Your task to perform on an android device: change alarm snooze length Image 0: 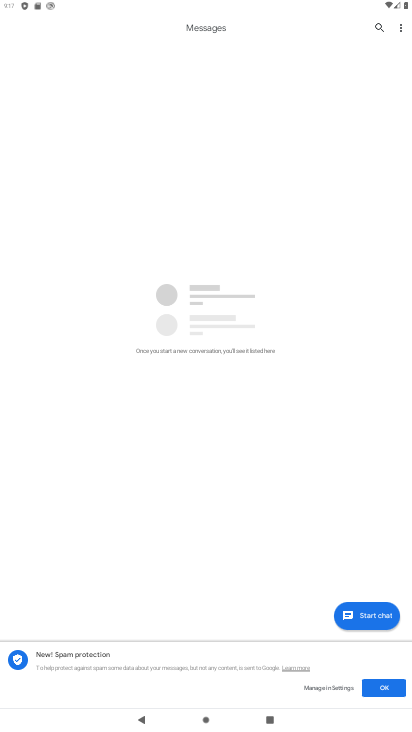
Step 0: press home button
Your task to perform on an android device: change alarm snooze length Image 1: 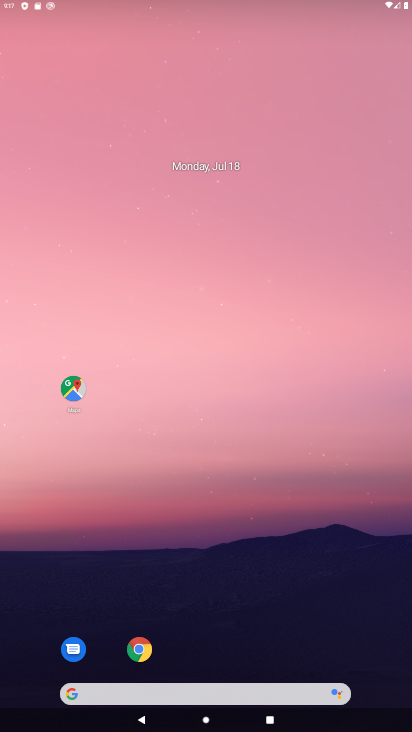
Step 1: drag from (271, 615) to (299, 137)
Your task to perform on an android device: change alarm snooze length Image 2: 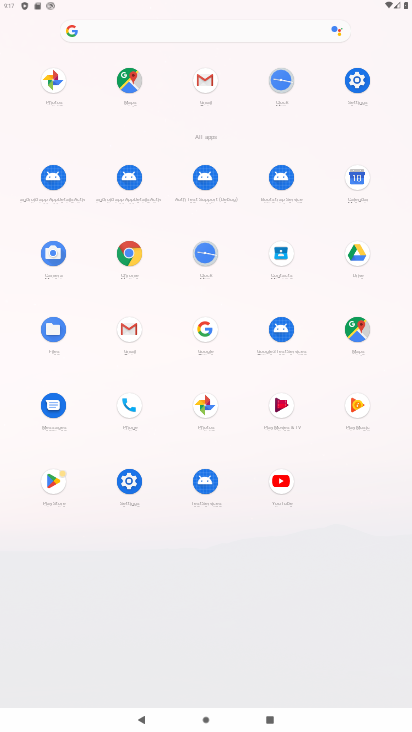
Step 2: click (203, 269)
Your task to perform on an android device: change alarm snooze length Image 3: 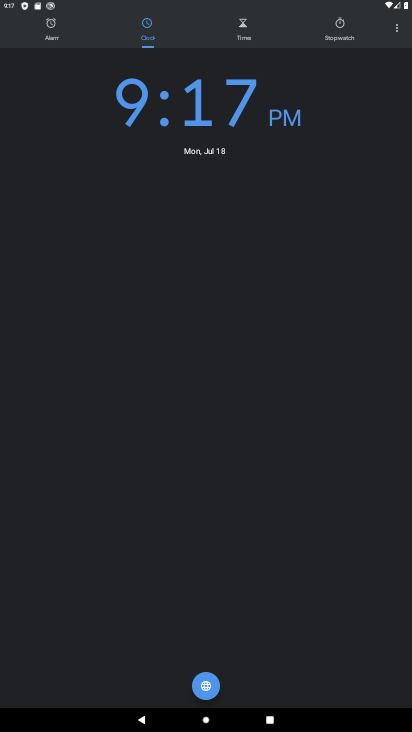
Step 3: click (395, 39)
Your task to perform on an android device: change alarm snooze length Image 4: 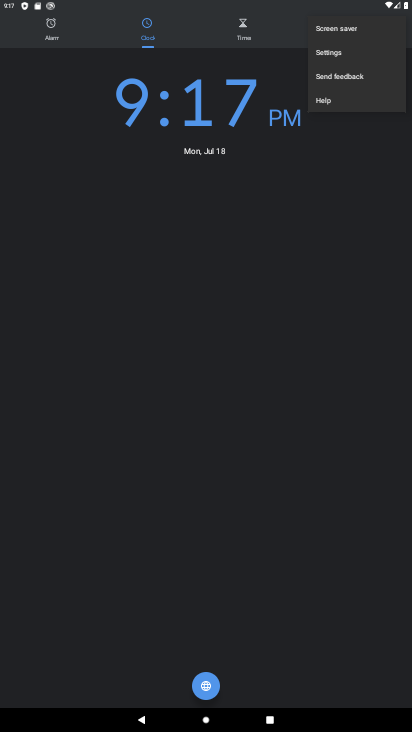
Step 4: click (355, 52)
Your task to perform on an android device: change alarm snooze length Image 5: 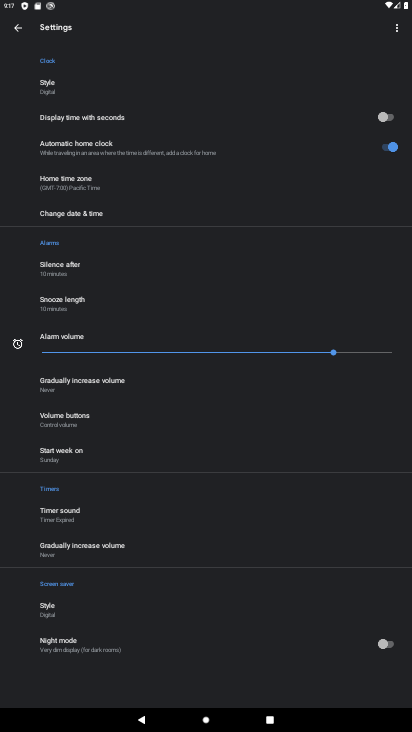
Step 5: click (101, 319)
Your task to perform on an android device: change alarm snooze length Image 6: 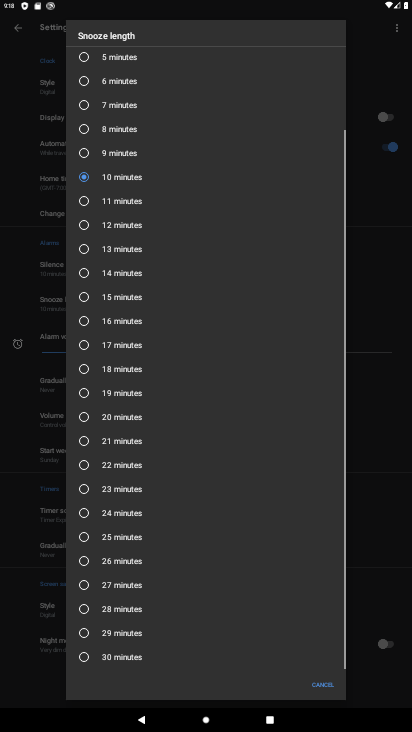
Step 6: click (144, 278)
Your task to perform on an android device: change alarm snooze length Image 7: 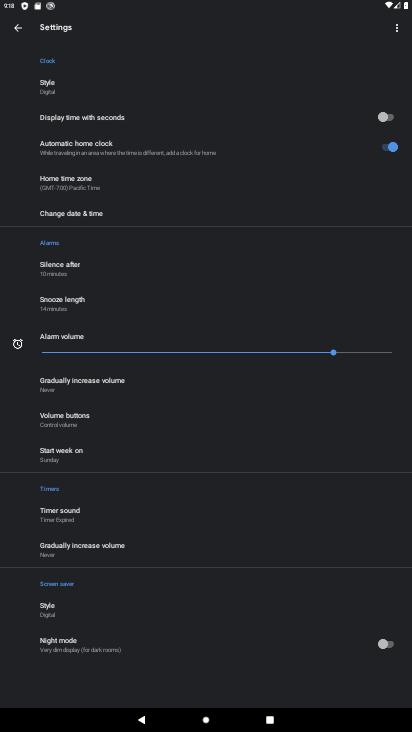
Step 7: task complete